Your task to perform on an android device: open app "Nova Launcher" (install if not already installed) and enter user name: "haggard@gmail.com" and password: "sadder" Image 0: 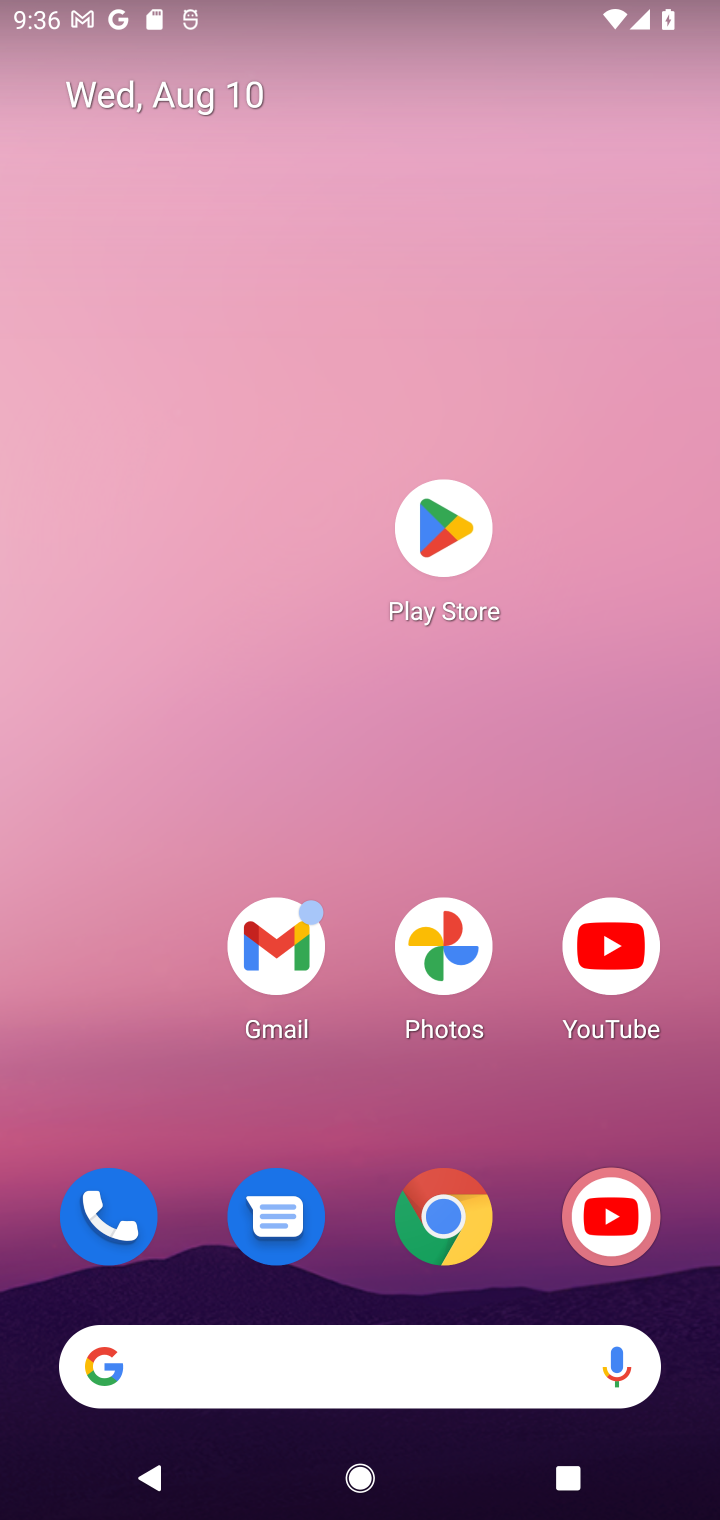
Step 0: press home button
Your task to perform on an android device: open app "Nova Launcher" (install if not already installed) and enter user name: "haggard@gmail.com" and password: "sadder" Image 1: 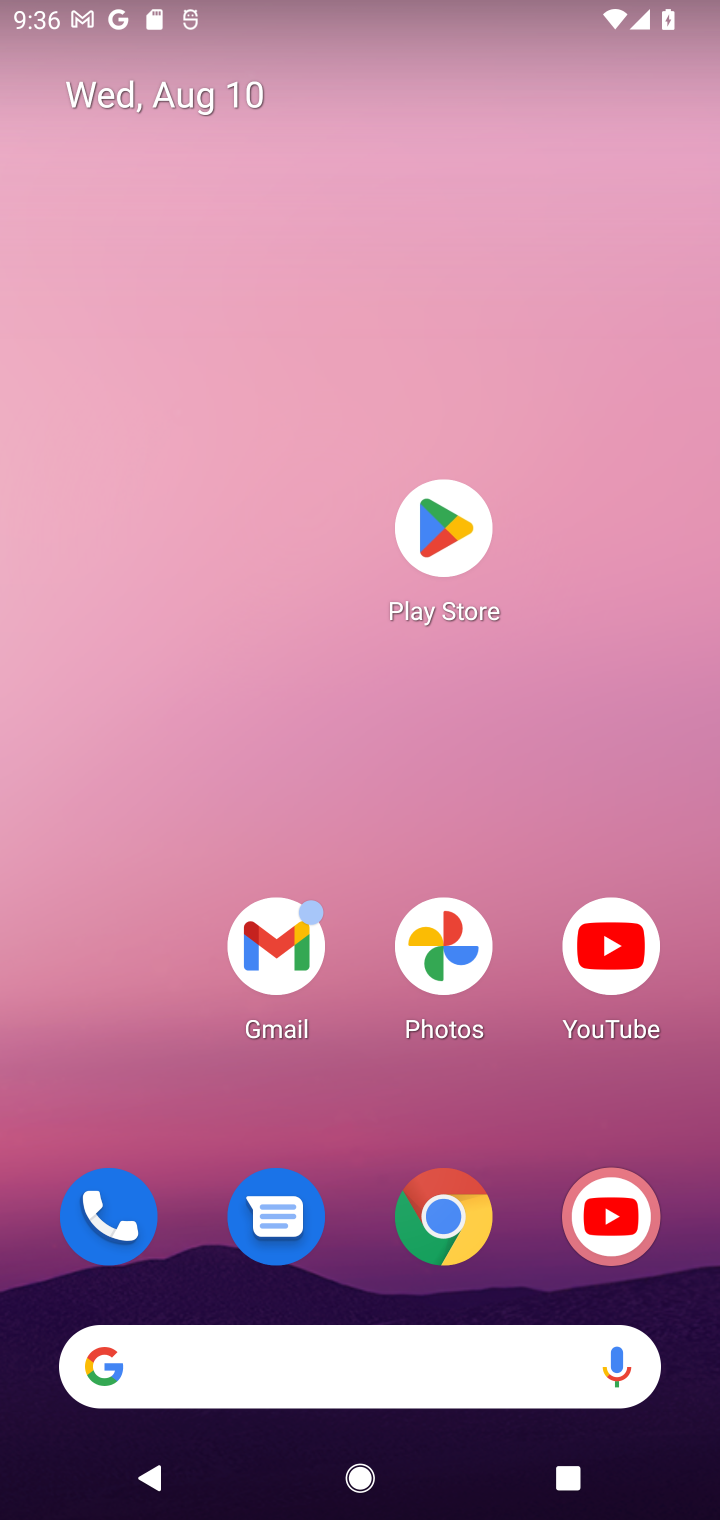
Step 1: click (431, 537)
Your task to perform on an android device: open app "Nova Launcher" (install if not already installed) and enter user name: "haggard@gmail.com" and password: "sadder" Image 2: 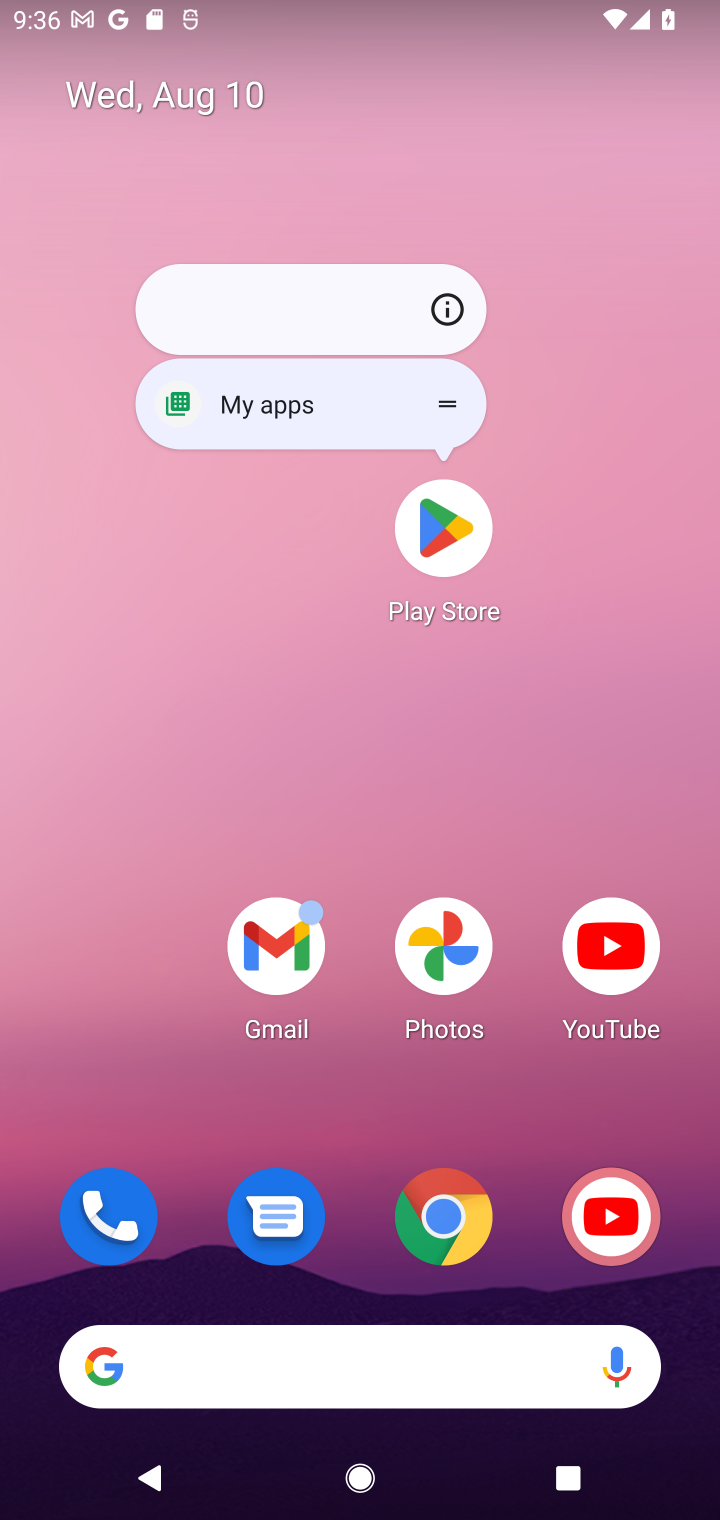
Step 2: click (452, 520)
Your task to perform on an android device: open app "Nova Launcher" (install if not already installed) and enter user name: "haggard@gmail.com" and password: "sadder" Image 3: 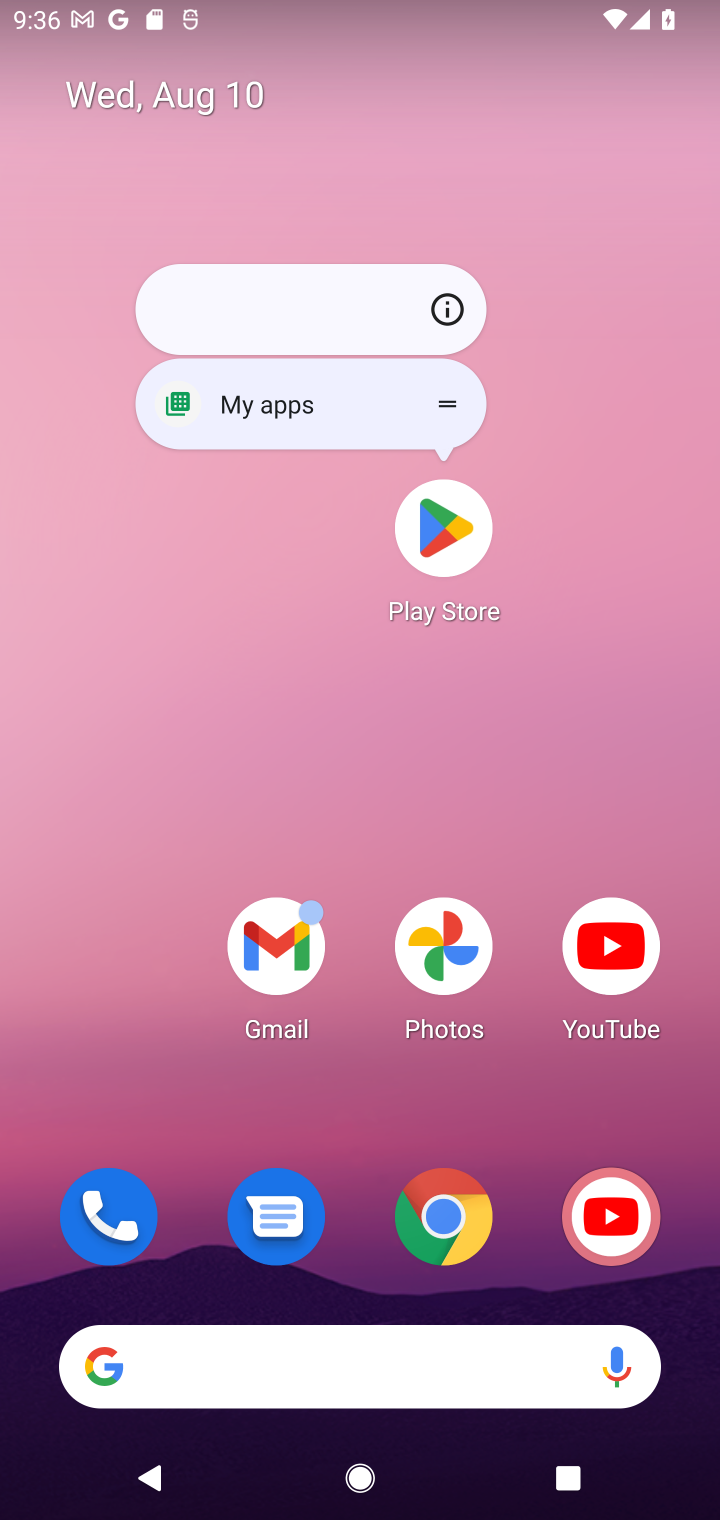
Step 3: click (431, 533)
Your task to perform on an android device: open app "Nova Launcher" (install if not already installed) and enter user name: "haggard@gmail.com" and password: "sadder" Image 4: 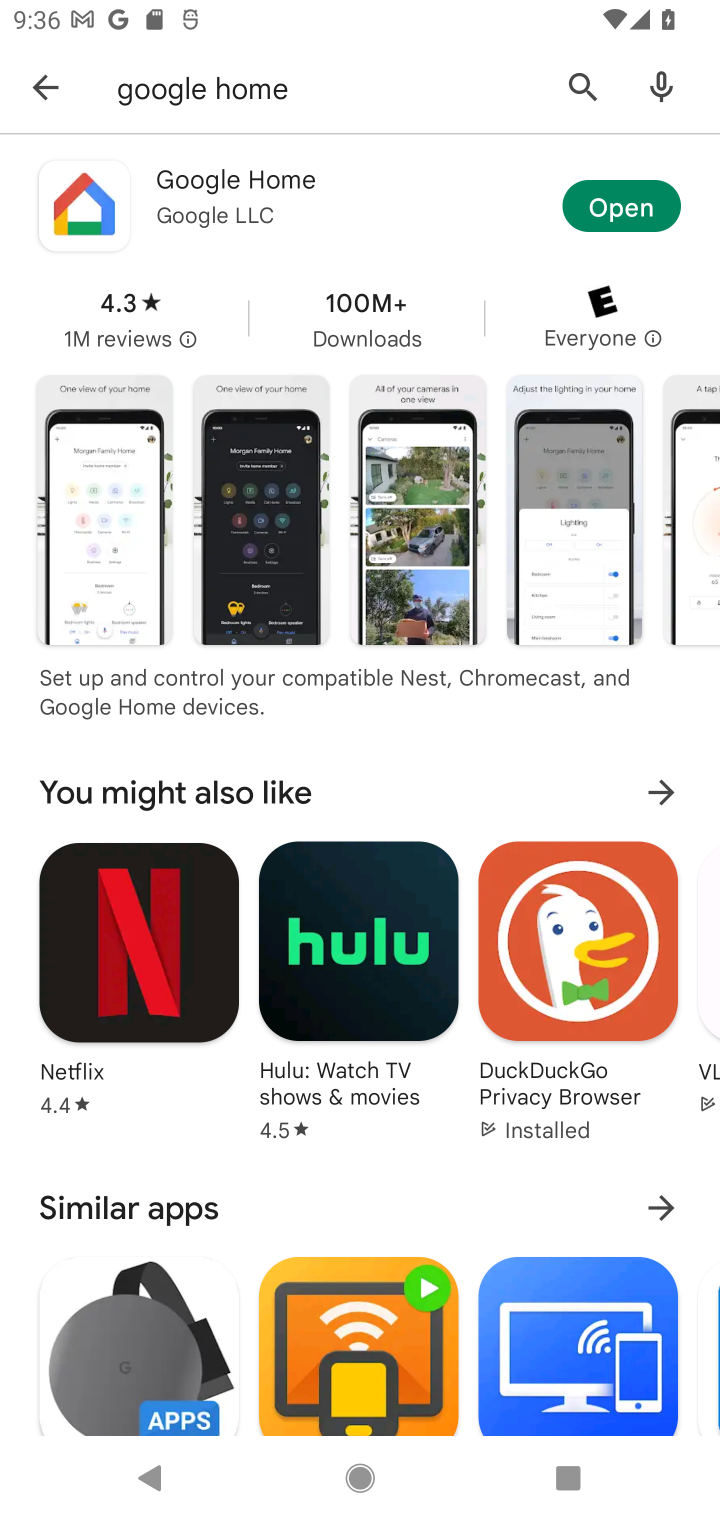
Step 4: click (584, 70)
Your task to perform on an android device: open app "Nova Launcher" (install if not already installed) and enter user name: "haggard@gmail.com" and password: "sadder" Image 5: 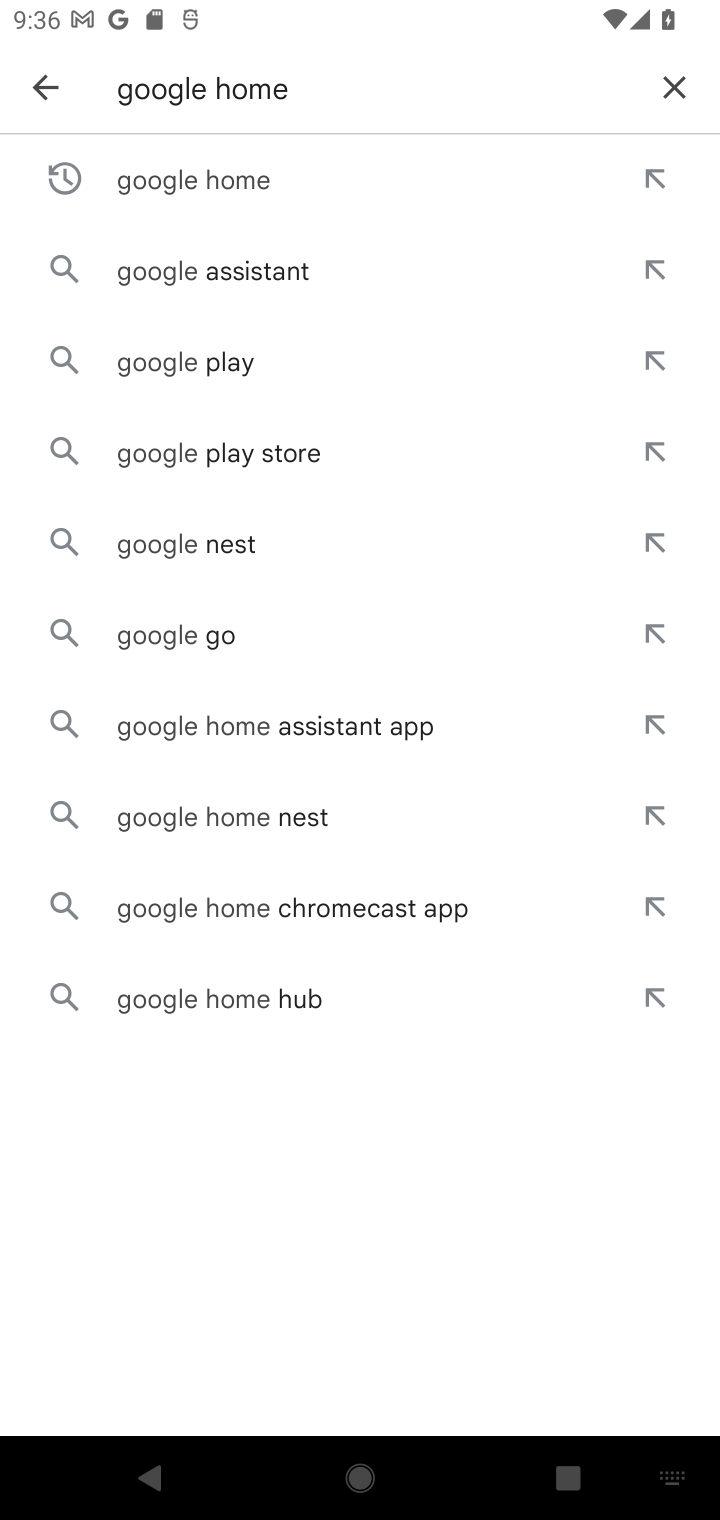
Step 5: click (674, 81)
Your task to perform on an android device: open app "Nova Launcher" (install if not already installed) and enter user name: "haggard@gmail.com" and password: "sadder" Image 6: 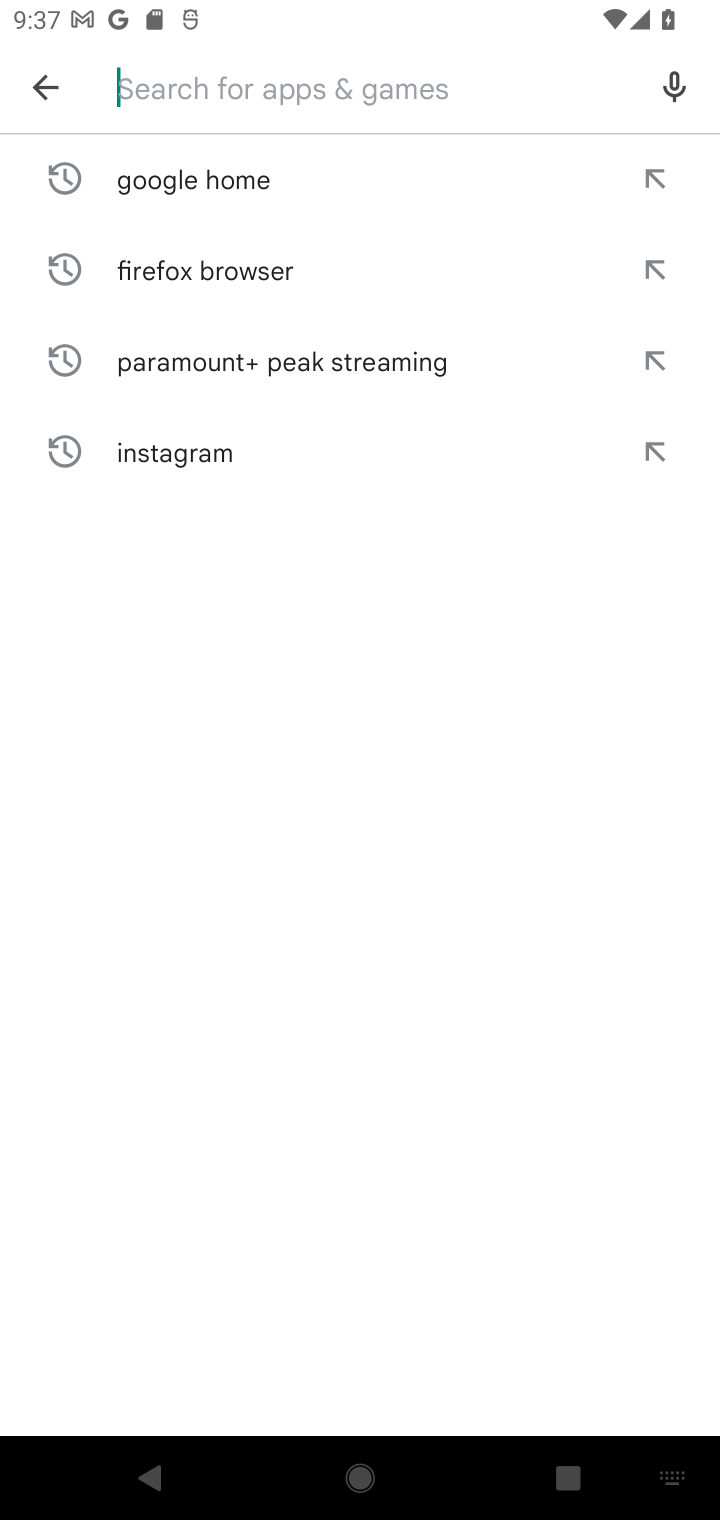
Step 6: type "Nova Launcher"
Your task to perform on an android device: open app "Nova Launcher" (install if not already installed) and enter user name: "haggard@gmail.com" and password: "sadder" Image 7: 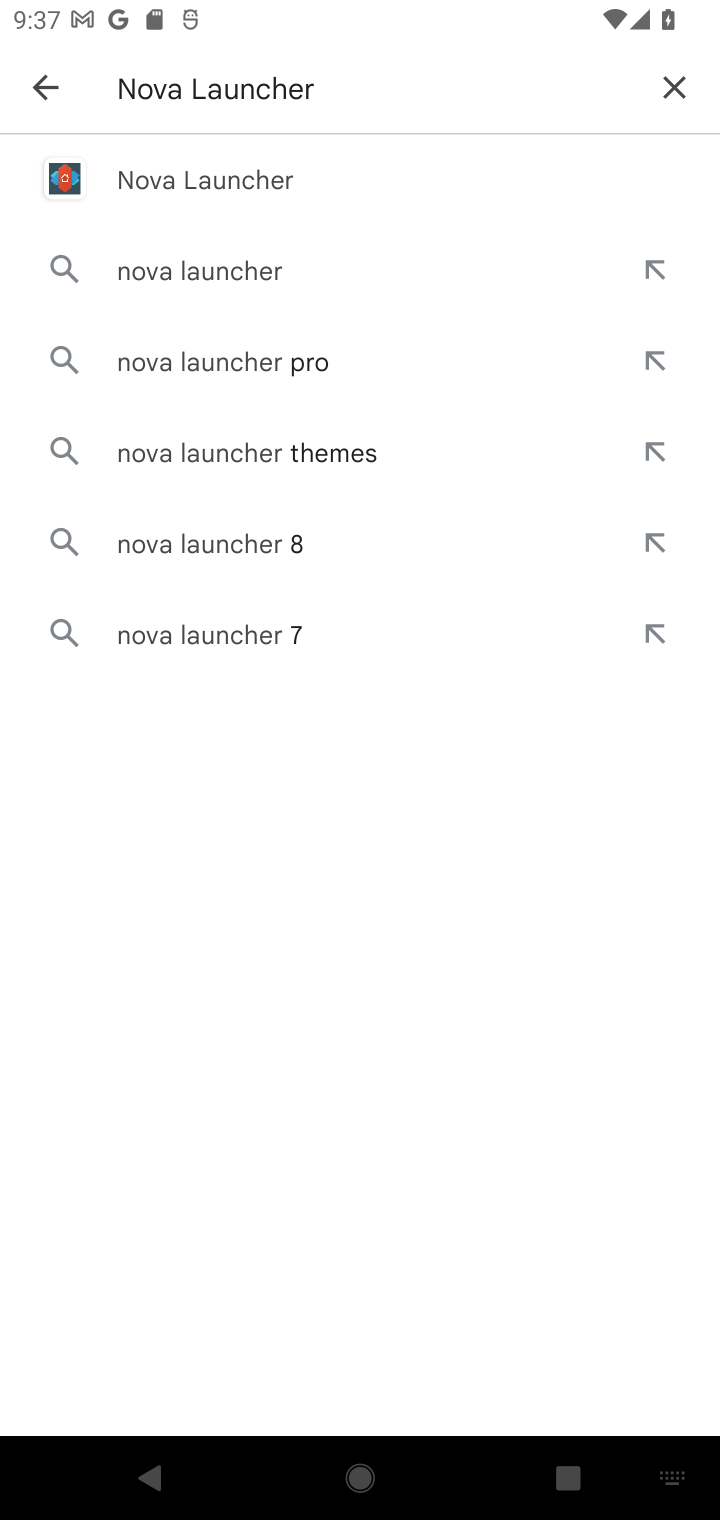
Step 7: click (259, 184)
Your task to perform on an android device: open app "Nova Launcher" (install if not already installed) and enter user name: "haggard@gmail.com" and password: "sadder" Image 8: 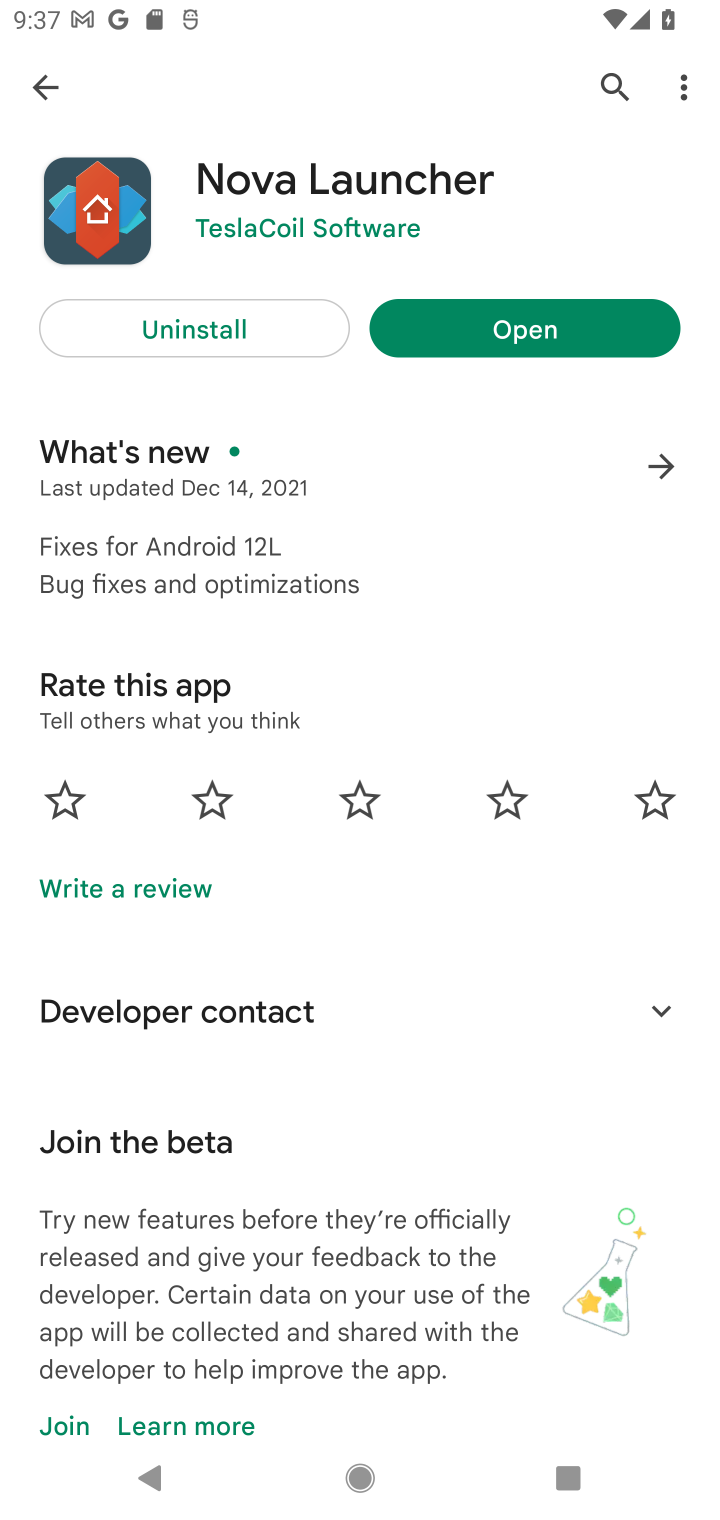
Step 8: click (576, 332)
Your task to perform on an android device: open app "Nova Launcher" (install if not already installed) and enter user name: "haggard@gmail.com" and password: "sadder" Image 9: 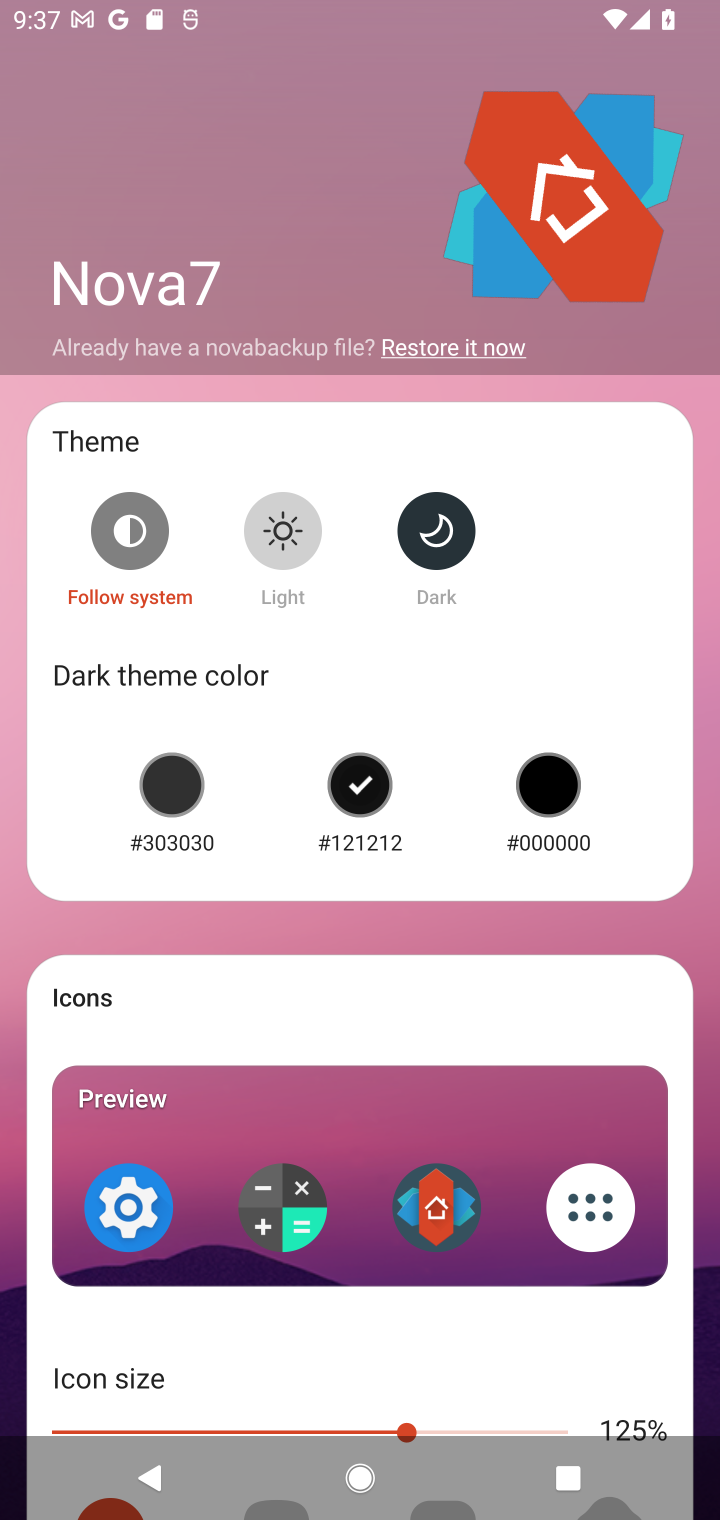
Step 9: task complete